Your task to perform on an android device: toggle priority inbox in the gmail app Image 0: 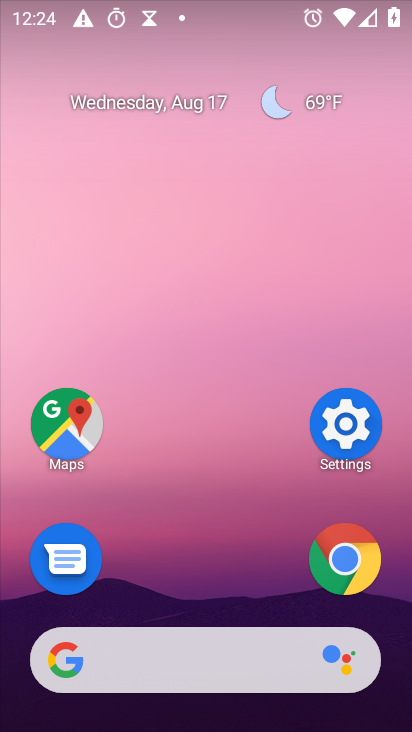
Step 0: drag from (211, 651) to (286, 25)
Your task to perform on an android device: toggle priority inbox in the gmail app Image 1: 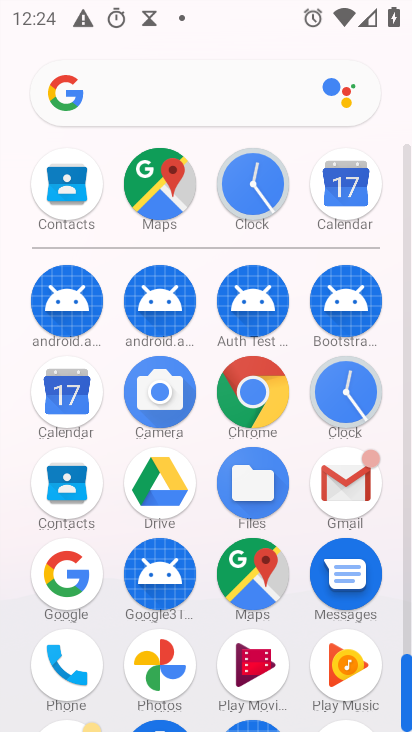
Step 1: click (358, 478)
Your task to perform on an android device: toggle priority inbox in the gmail app Image 2: 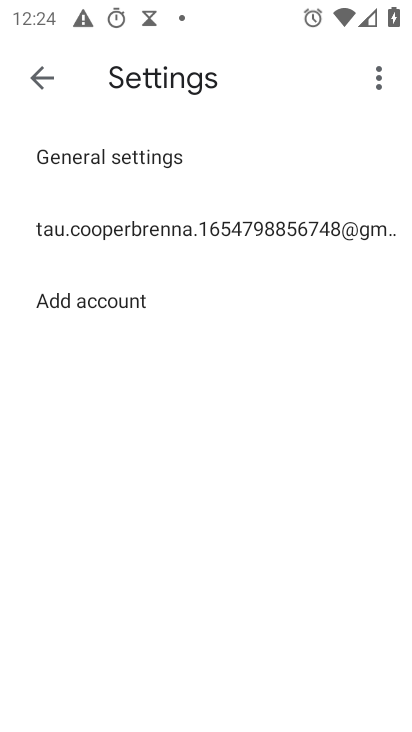
Step 2: click (181, 225)
Your task to perform on an android device: toggle priority inbox in the gmail app Image 3: 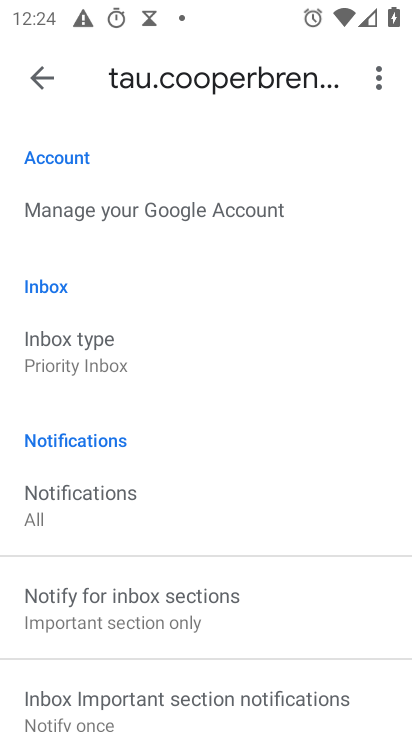
Step 3: click (99, 359)
Your task to perform on an android device: toggle priority inbox in the gmail app Image 4: 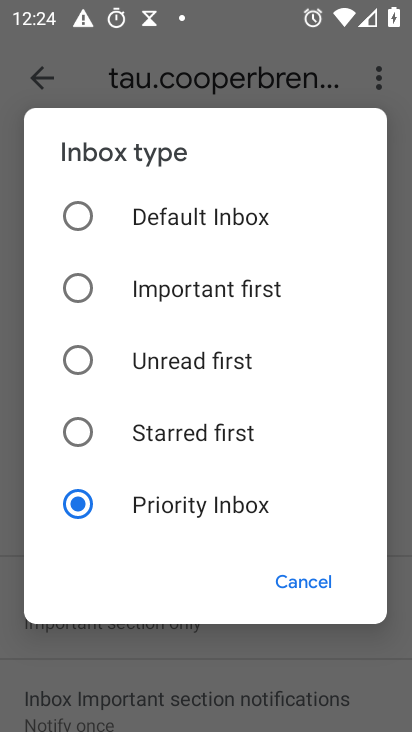
Step 4: click (84, 211)
Your task to perform on an android device: toggle priority inbox in the gmail app Image 5: 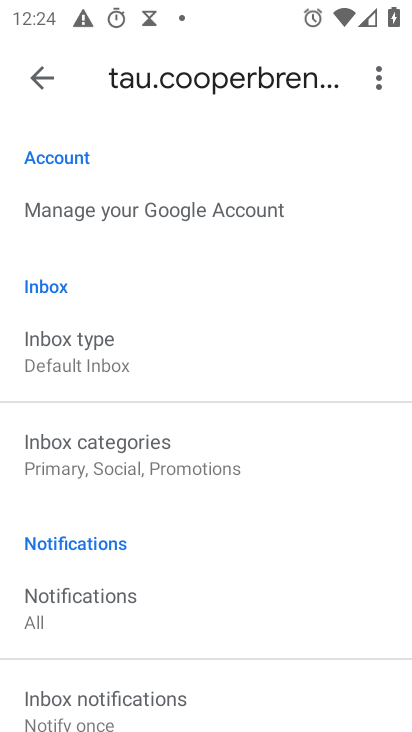
Step 5: task complete